Your task to perform on an android device: Turn on the flashlight Image 0: 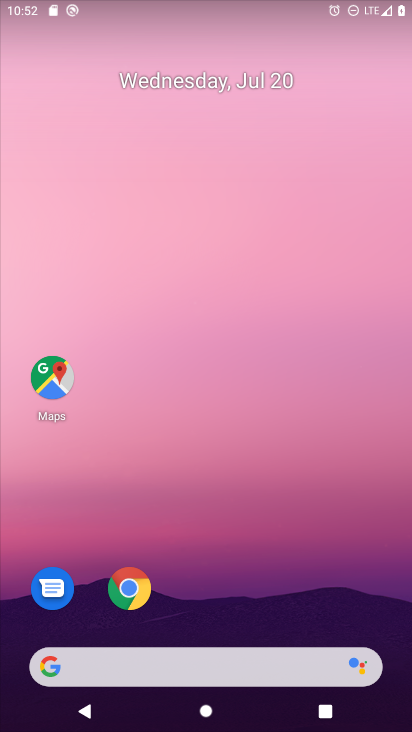
Step 0: drag from (221, 634) to (308, 99)
Your task to perform on an android device: Turn on the flashlight Image 1: 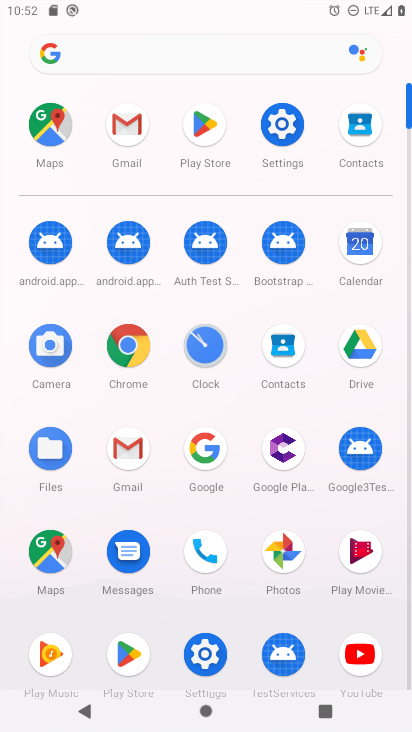
Step 1: click (263, 119)
Your task to perform on an android device: Turn on the flashlight Image 2: 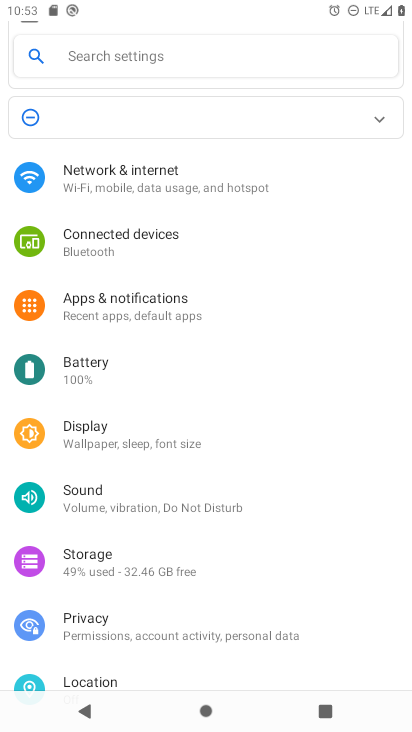
Step 2: task complete